Your task to perform on an android device: turn on data saver in the chrome app Image 0: 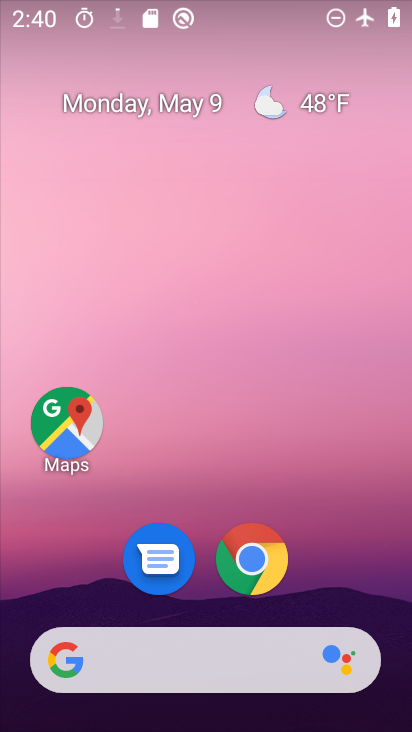
Step 0: drag from (198, 605) to (265, 122)
Your task to perform on an android device: turn on data saver in the chrome app Image 1: 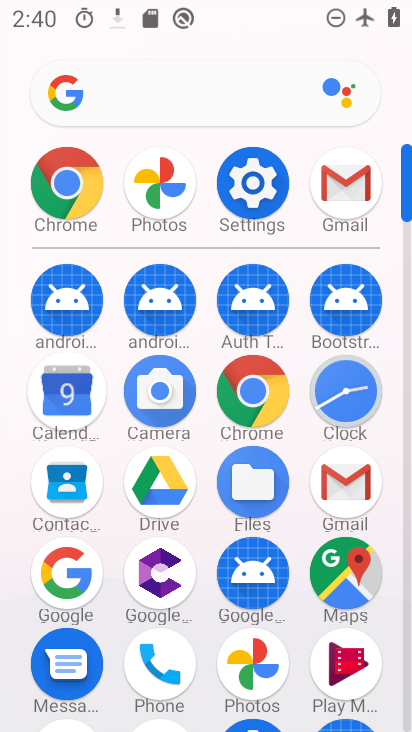
Step 1: click (259, 387)
Your task to perform on an android device: turn on data saver in the chrome app Image 2: 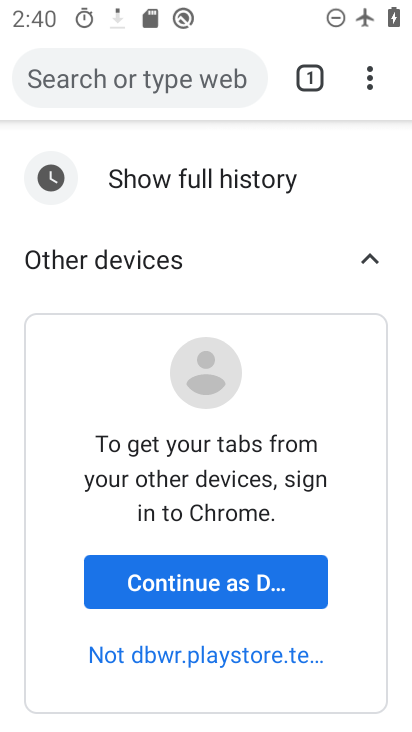
Step 2: drag from (361, 72) to (174, 623)
Your task to perform on an android device: turn on data saver in the chrome app Image 3: 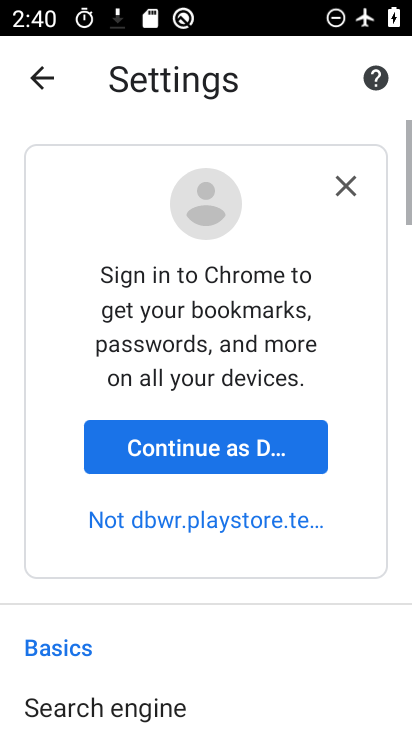
Step 3: drag from (172, 617) to (296, 35)
Your task to perform on an android device: turn on data saver in the chrome app Image 4: 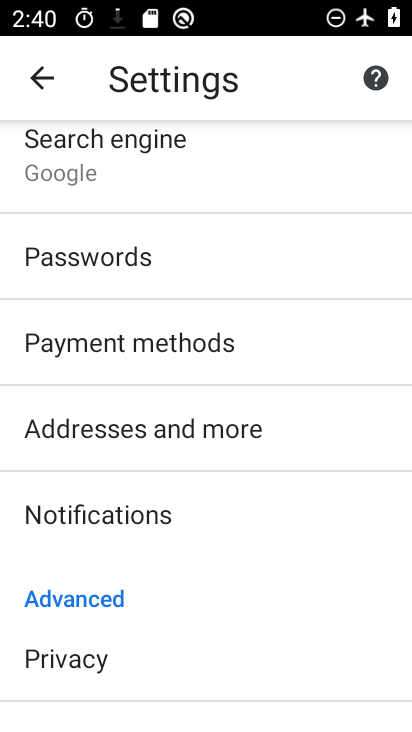
Step 4: drag from (195, 537) to (249, 105)
Your task to perform on an android device: turn on data saver in the chrome app Image 5: 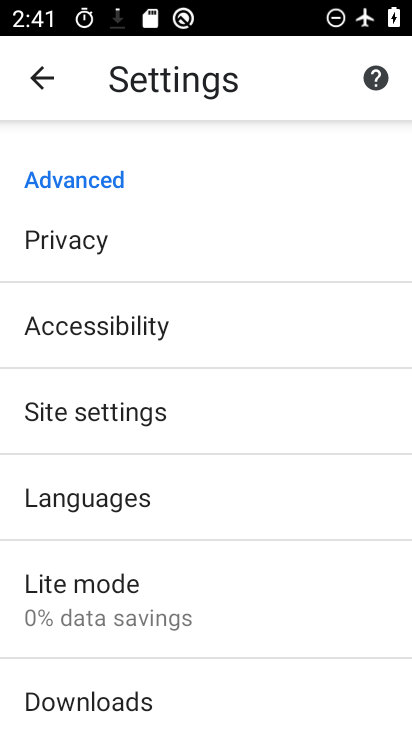
Step 5: drag from (178, 541) to (264, 189)
Your task to perform on an android device: turn on data saver in the chrome app Image 6: 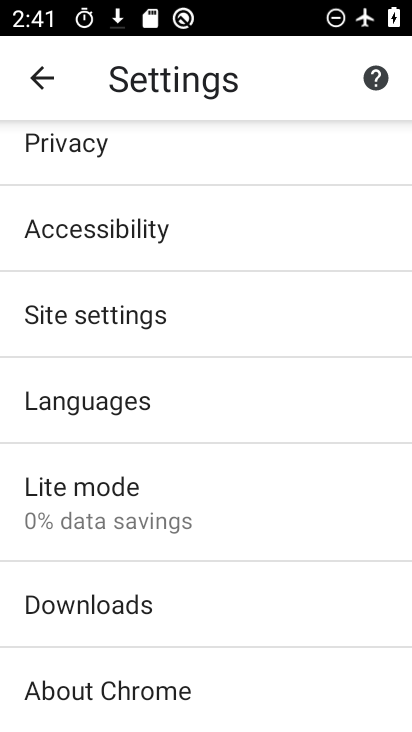
Step 6: click (115, 490)
Your task to perform on an android device: turn on data saver in the chrome app Image 7: 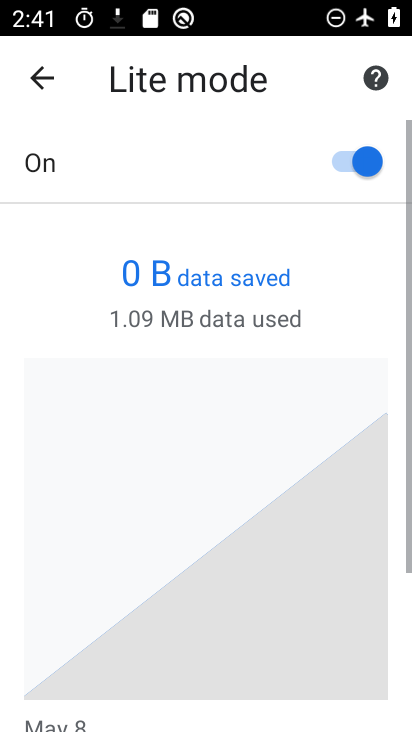
Step 7: task complete